Your task to perform on an android device: turn on javascript in the chrome app Image 0: 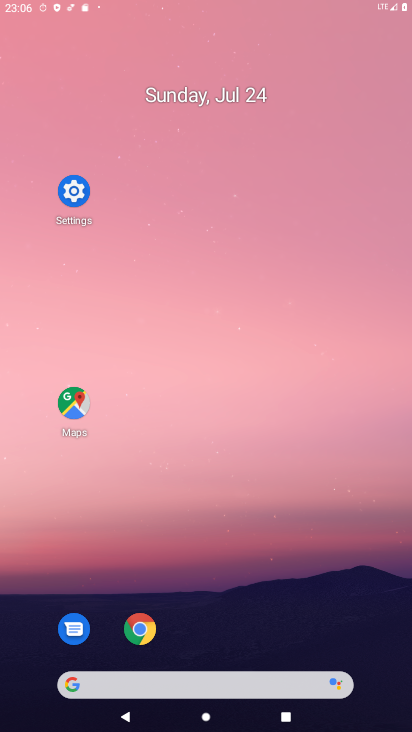
Step 0: click (235, 115)
Your task to perform on an android device: turn on javascript in the chrome app Image 1: 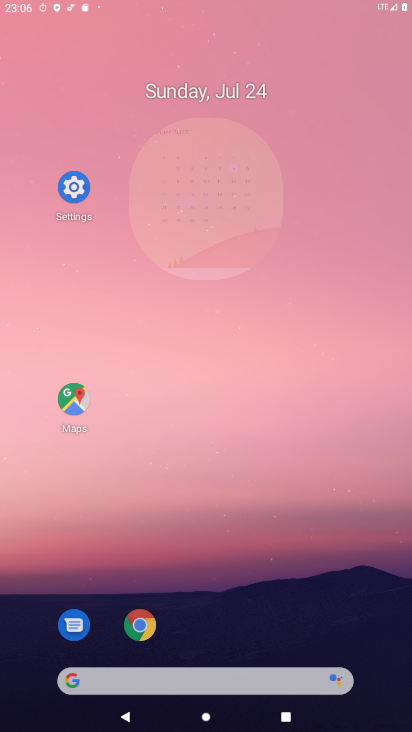
Step 1: drag from (201, 670) to (157, 30)
Your task to perform on an android device: turn on javascript in the chrome app Image 2: 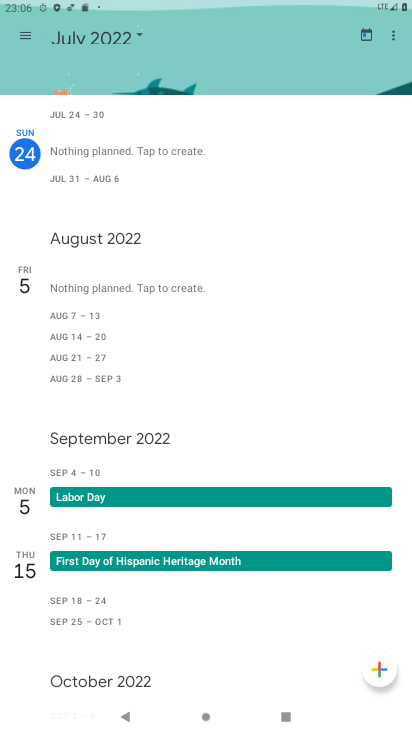
Step 2: press back button
Your task to perform on an android device: turn on javascript in the chrome app Image 3: 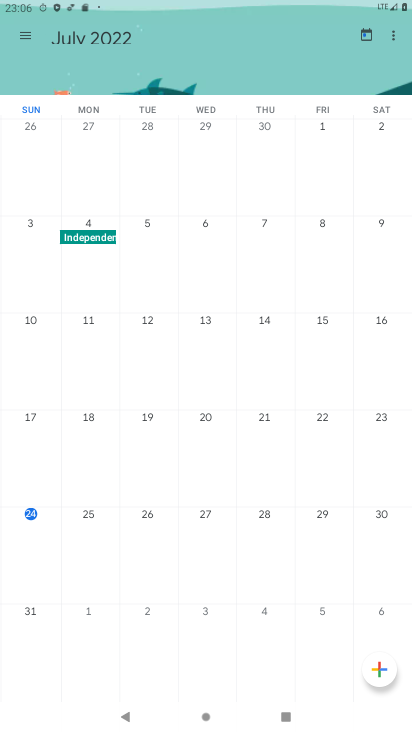
Step 3: press back button
Your task to perform on an android device: turn on javascript in the chrome app Image 4: 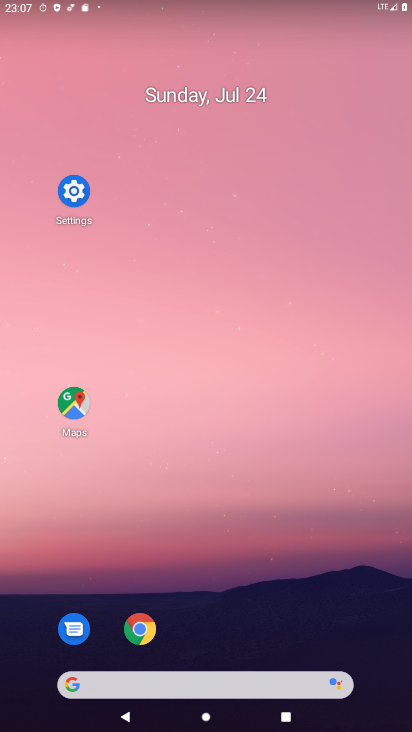
Step 4: drag from (276, 660) to (154, 18)
Your task to perform on an android device: turn on javascript in the chrome app Image 5: 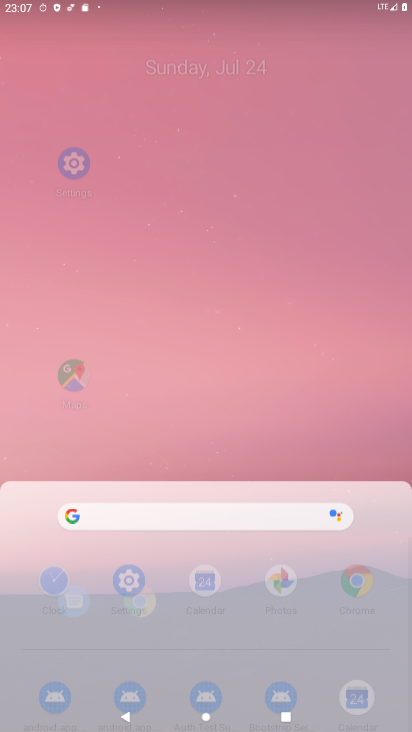
Step 5: drag from (166, 622) to (158, 64)
Your task to perform on an android device: turn on javascript in the chrome app Image 6: 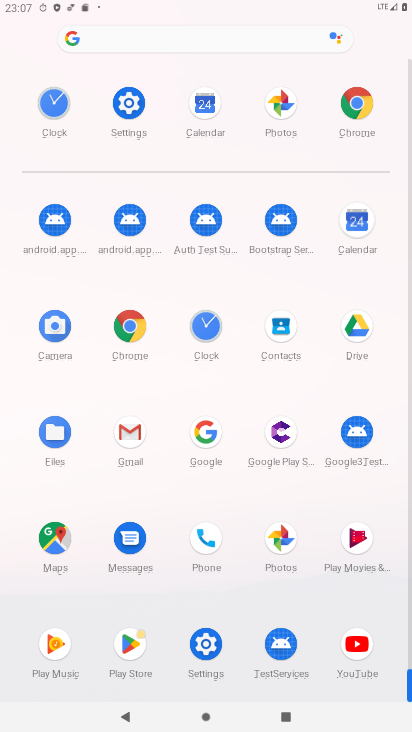
Step 6: click (364, 106)
Your task to perform on an android device: turn on javascript in the chrome app Image 7: 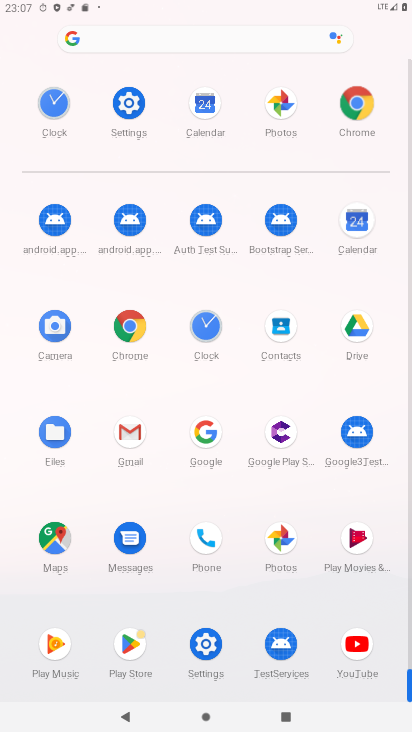
Step 7: click (359, 105)
Your task to perform on an android device: turn on javascript in the chrome app Image 8: 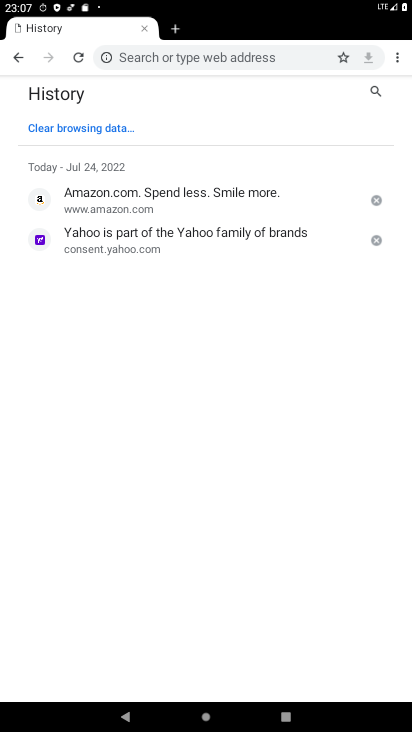
Step 8: drag from (395, 60) to (280, 264)
Your task to perform on an android device: turn on javascript in the chrome app Image 9: 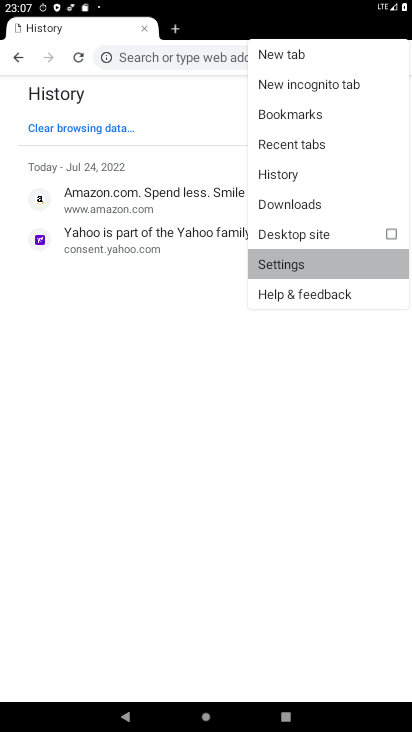
Step 9: click (291, 259)
Your task to perform on an android device: turn on javascript in the chrome app Image 10: 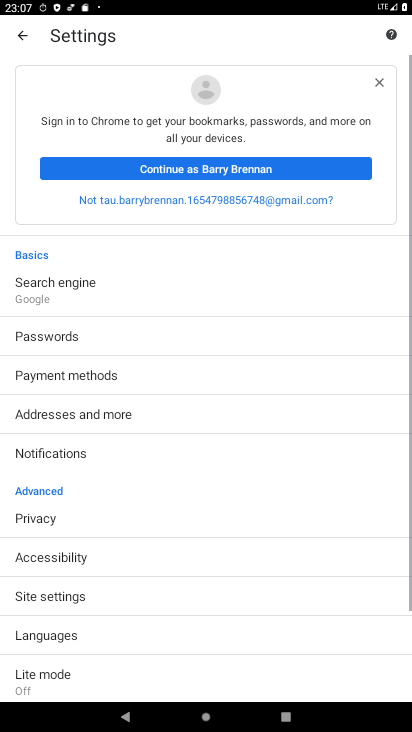
Step 10: drag from (102, 534) to (89, 141)
Your task to perform on an android device: turn on javascript in the chrome app Image 11: 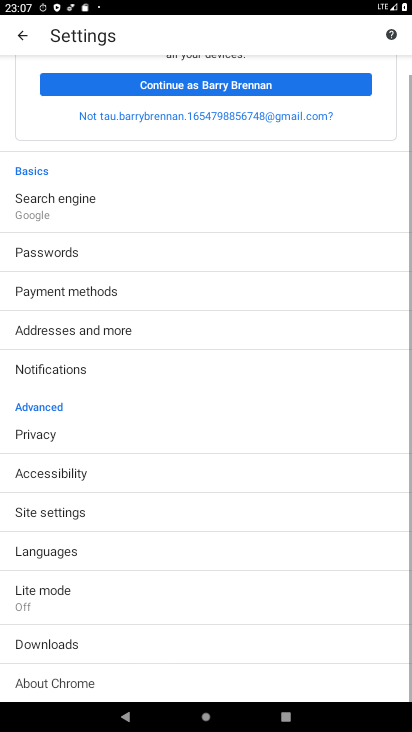
Step 11: drag from (2, 462) to (12, 9)
Your task to perform on an android device: turn on javascript in the chrome app Image 12: 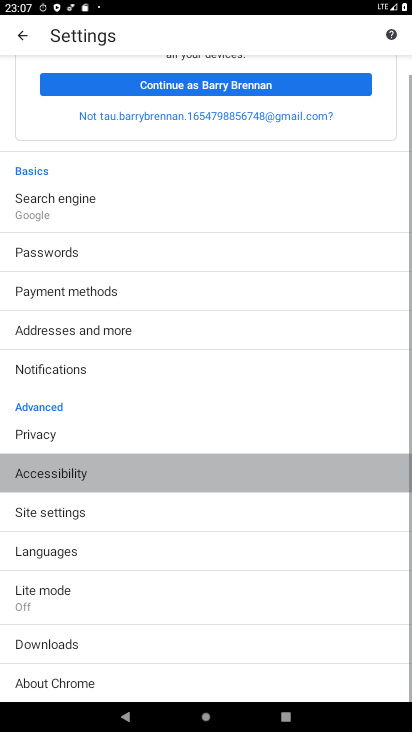
Step 12: drag from (62, 485) to (74, 18)
Your task to perform on an android device: turn on javascript in the chrome app Image 13: 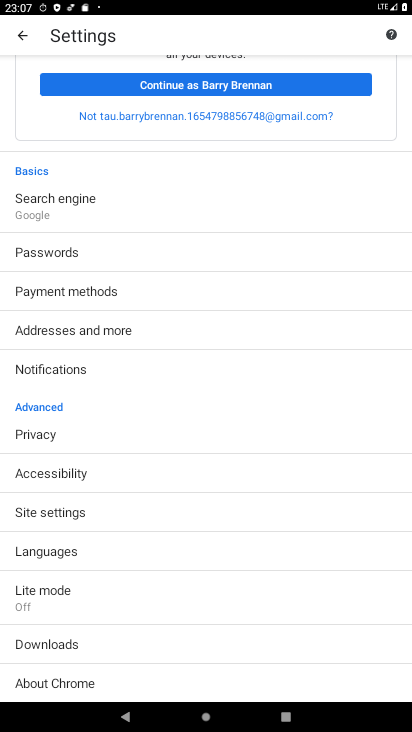
Step 13: drag from (79, 573) to (61, 184)
Your task to perform on an android device: turn on javascript in the chrome app Image 14: 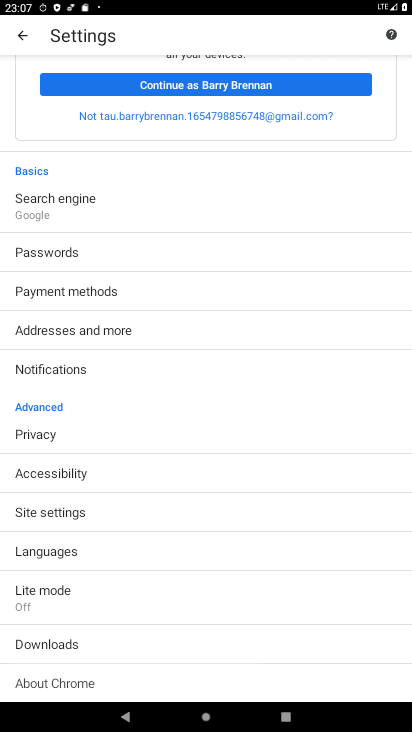
Step 14: drag from (132, 525) to (72, 183)
Your task to perform on an android device: turn on javascript in the chrome app Image 15: 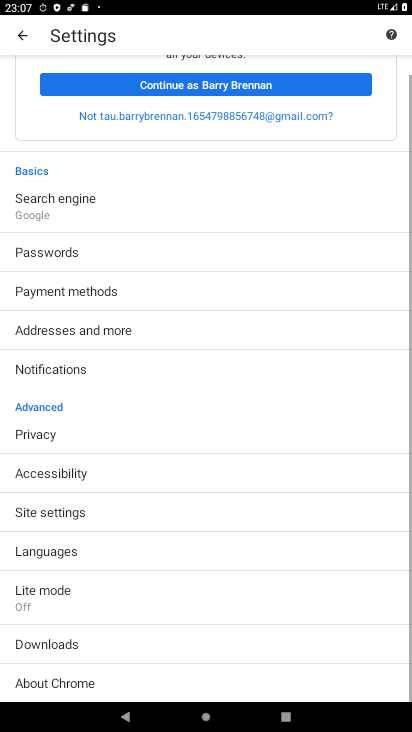
Step 15: drag from (156, 525) to (125, 155)
Your task to perform on an android device: turn on javascript in the chrome app Image 16: 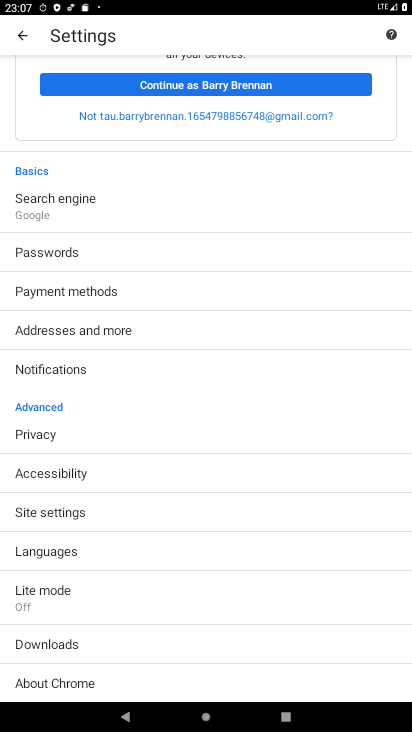
Step 16: click (39, 514)
Your task to perform on an android device: turn on javascript in the chrome app Image 17: 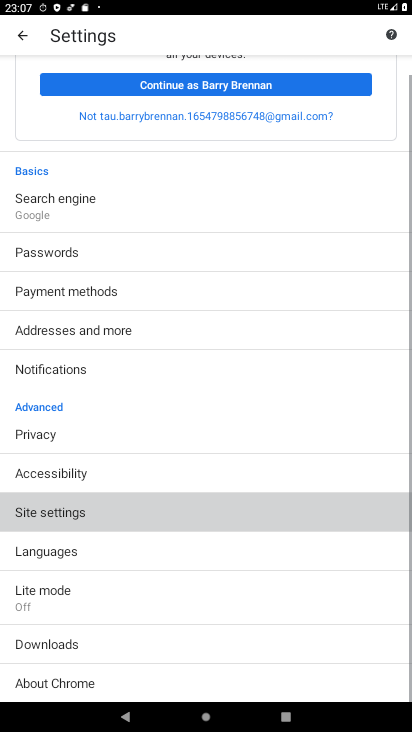
Step 17: click (39, 514)
Your task to perform on an android device: turn on javascript in the chrome app Image 18: 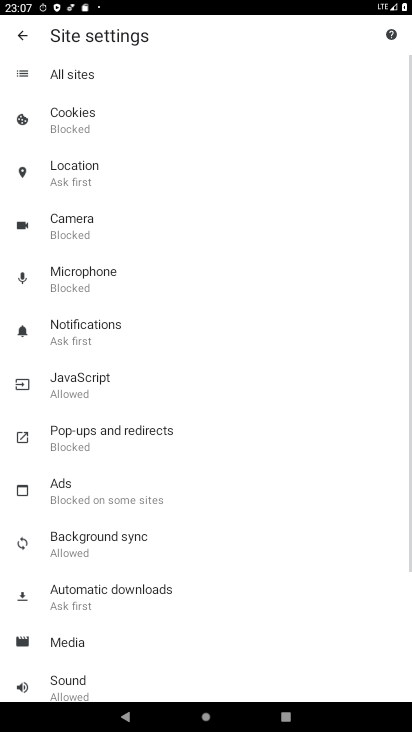
Step 18: click (65, 379)
Your task to perform on an android device: turn on javascript in the chrome app Image 19: 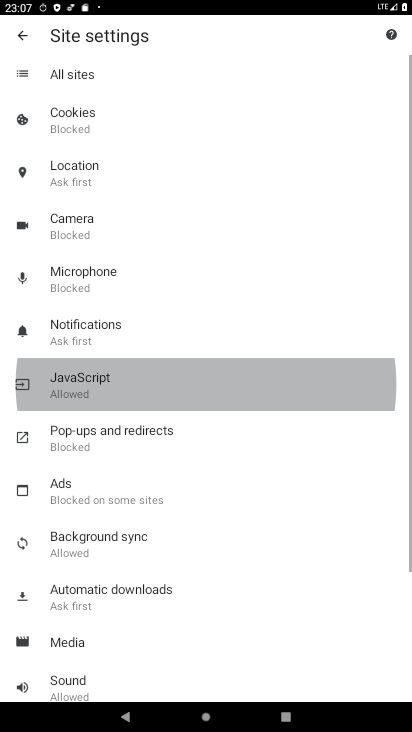
Step 19: click (65, 378)
Your task to perform on an android device: turn on javascript in the chrome app Image 20: 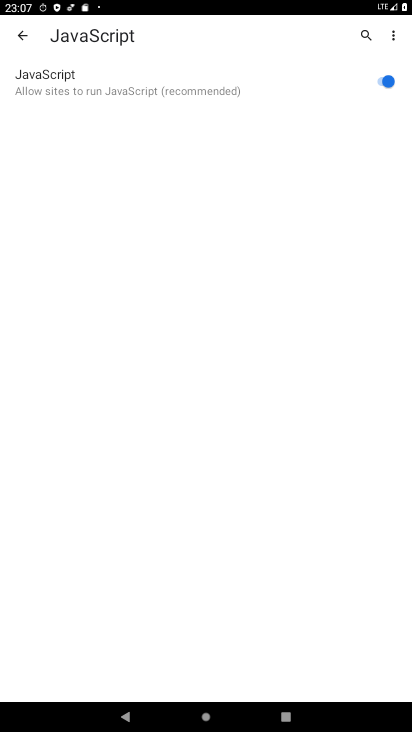
Step 20: task complete